Your task to perform on an android device: Open ESPN.com Image 0: 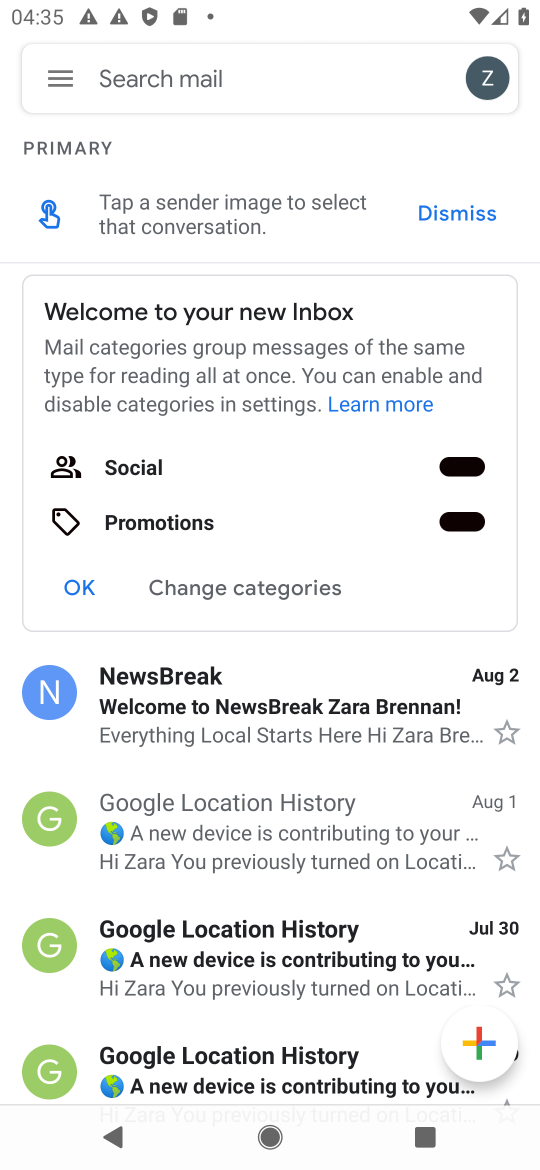
Step 0: press home button
Your task to perform on an android device: Open ESPN.com Image 1: 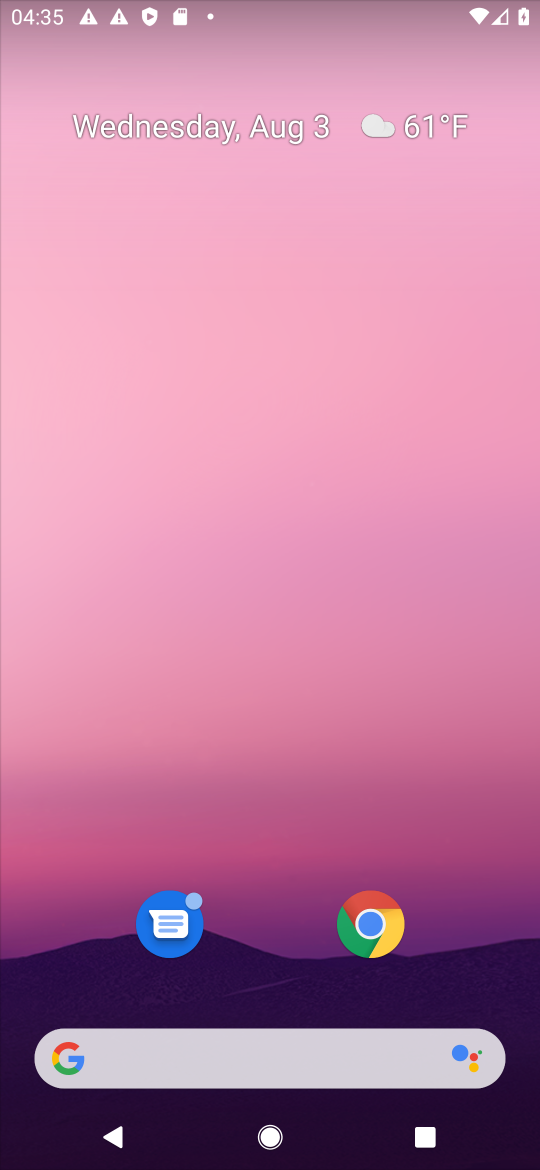
Step 1: click (356, 930)
Your task to perform on an android device: Open ESPN.com Image 2: 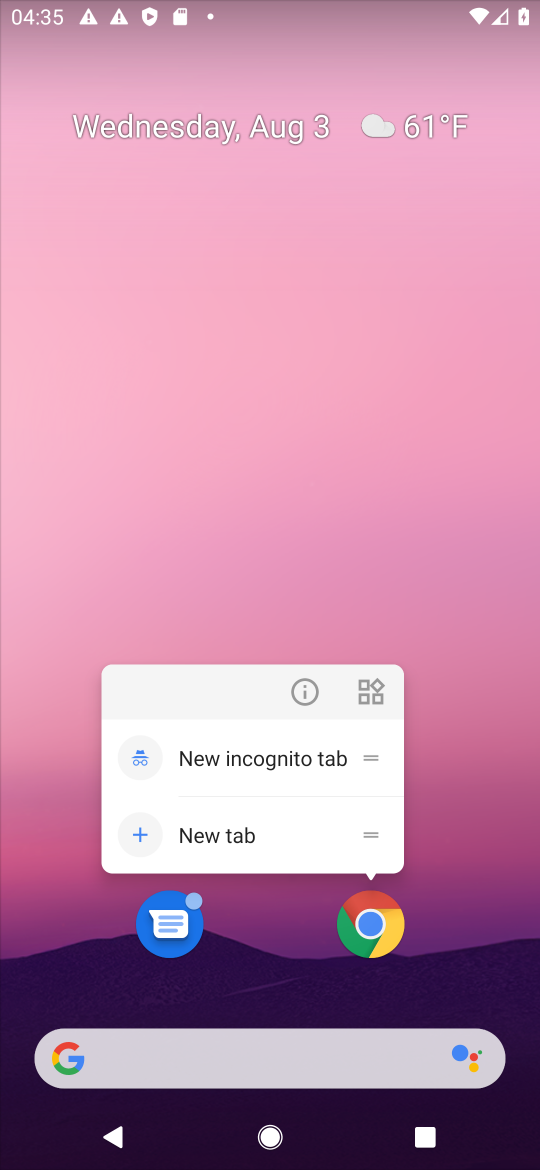
Step 2: click (366, 926)
Your task to perform on an android device: Open ESPN.com Image 3: 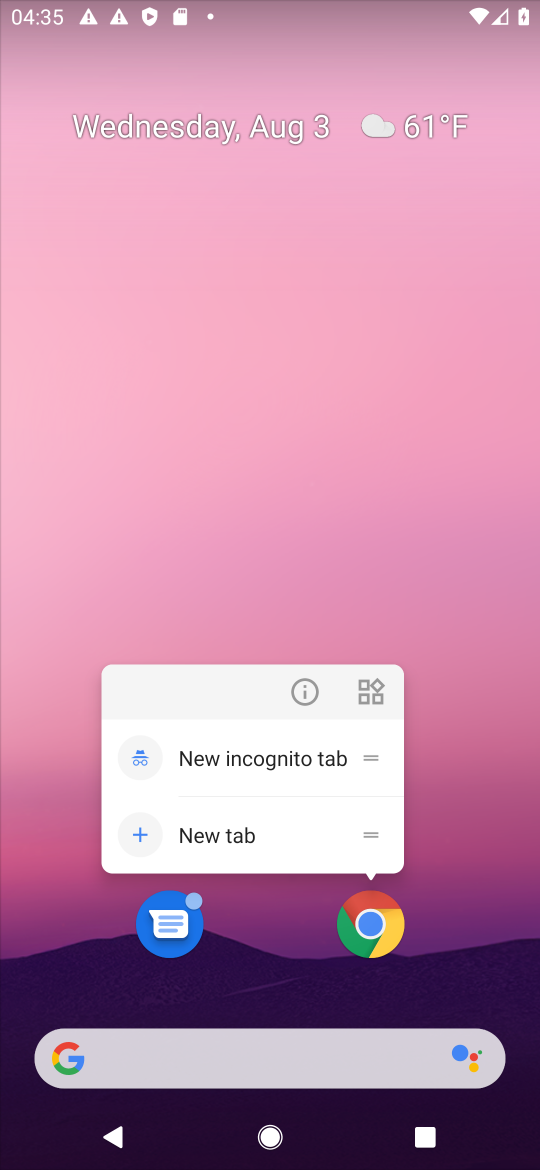
Step 3: click (365, 917)
Your task to perform on an android device: Open ESPN.com Image 4: 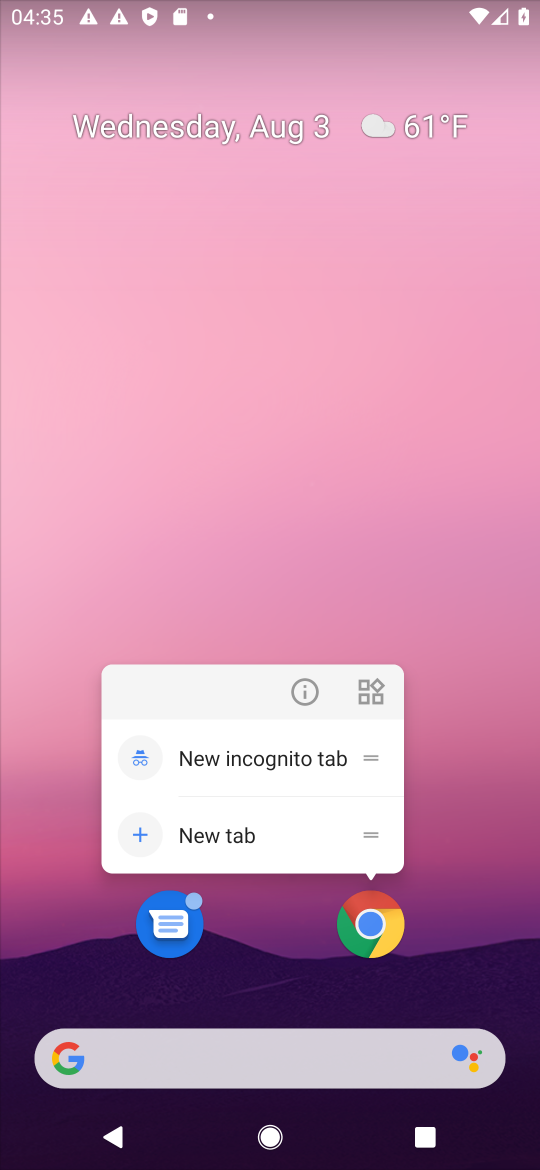
Step 4: click (363, 923)
Your task to perform on an android device: Open ESPN.com Image 5: 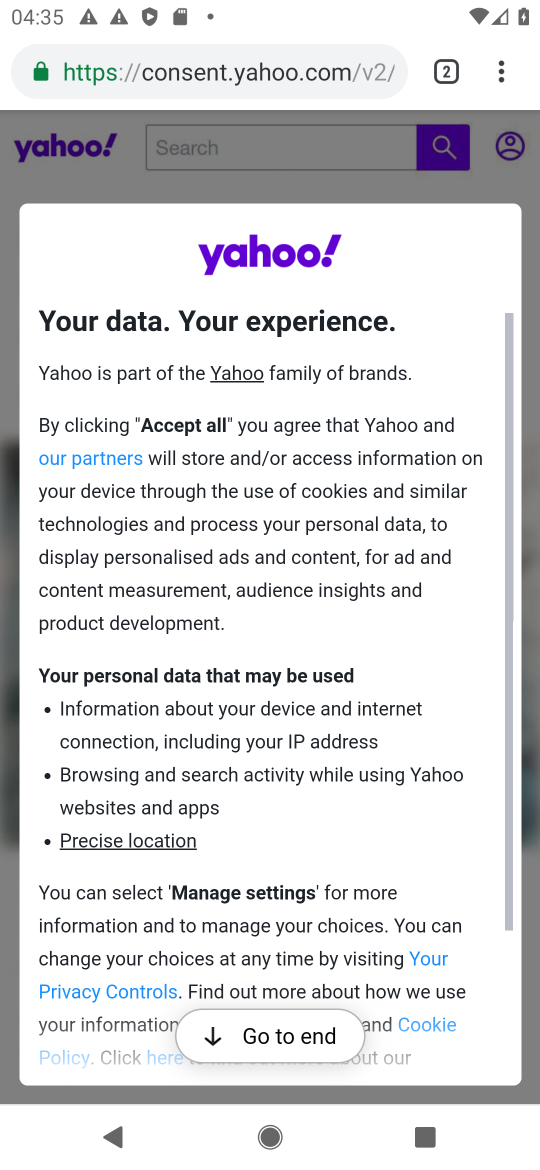
Step 5: click (472, 76)
Your task to perform on an android device: Open ESPN.com Image 6: 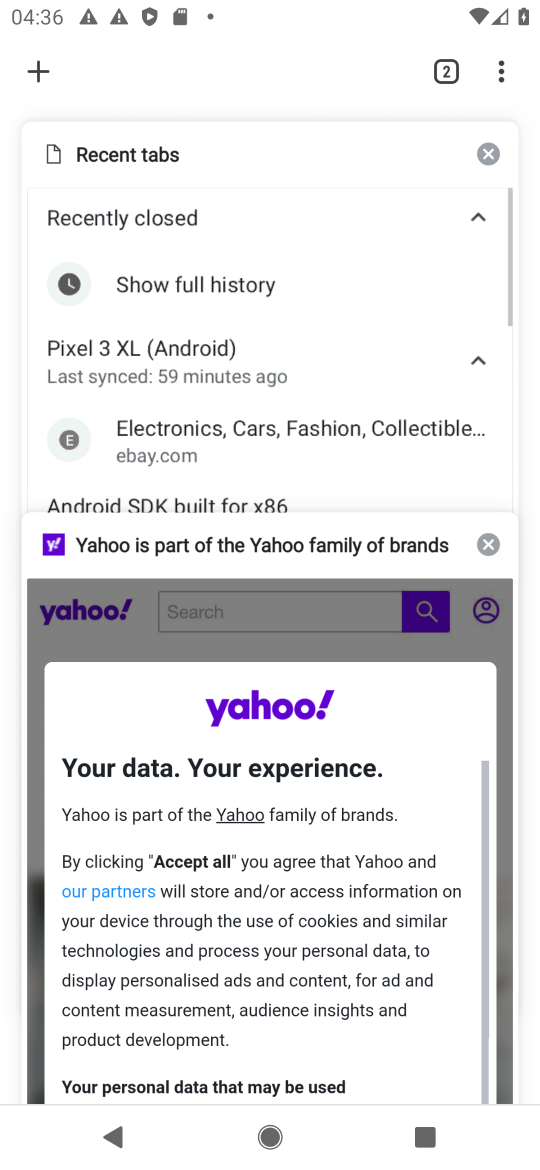
Step 6: click (49, 71)
Your task to perform on an android device: Open ESPN.com Image 7: 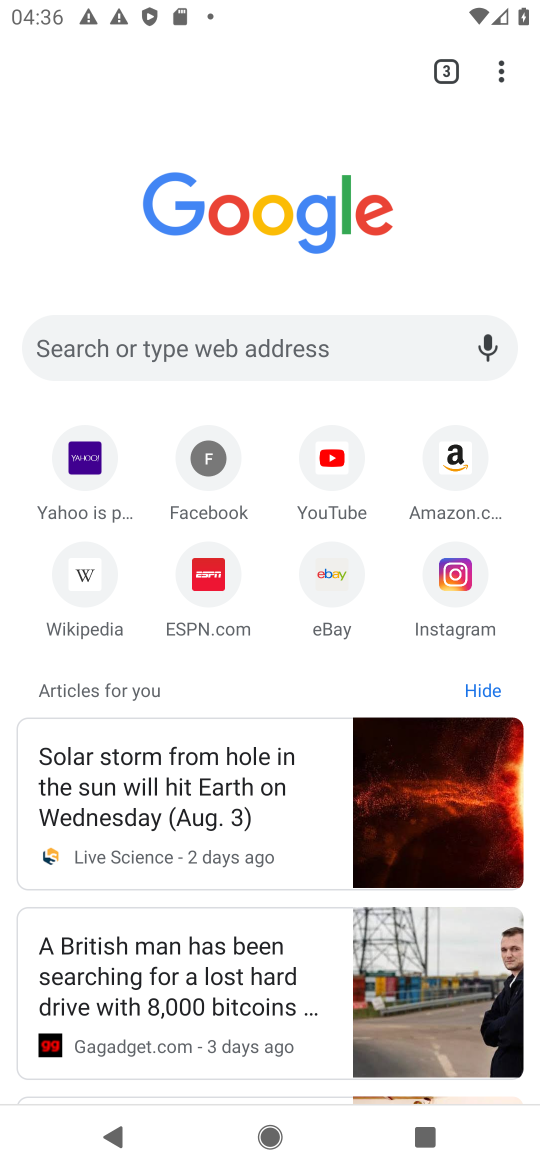
Step 7: click (213, 587)
Your task to perform on an android device: Open ESPN.com Image 8: 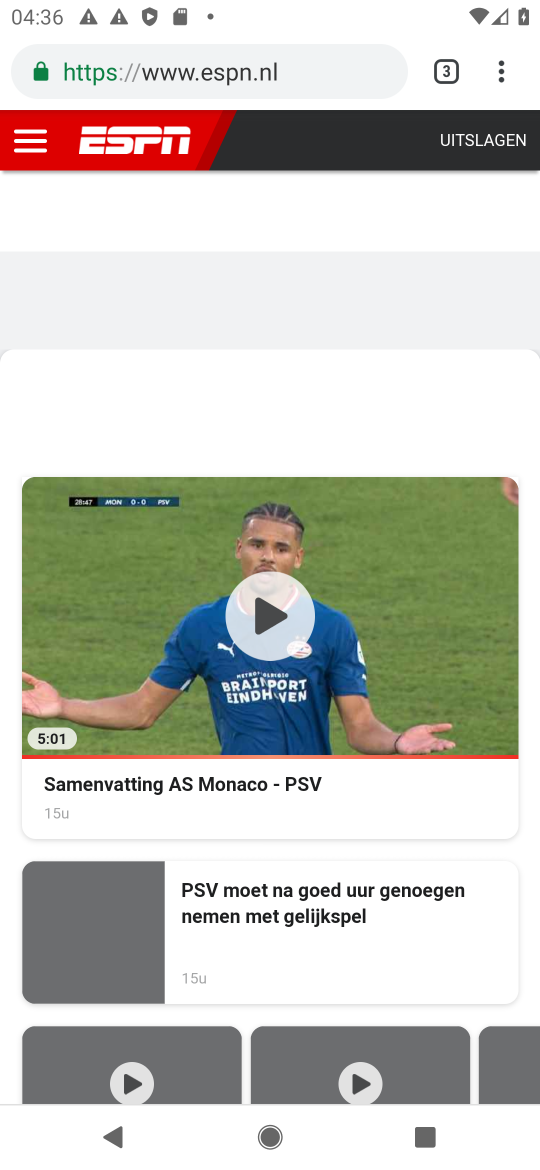
Step 8: task complete